Your task to perform on an android device: Go to settings Image 0: 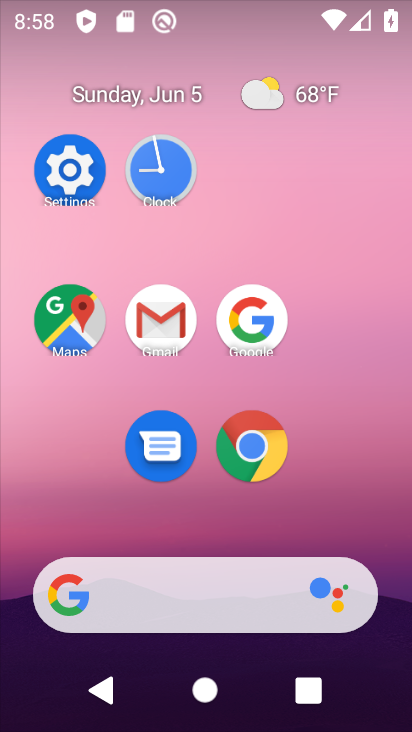
Step 0: click (84, 172)
Your task to perform on an android device: Go to settings Image 1: 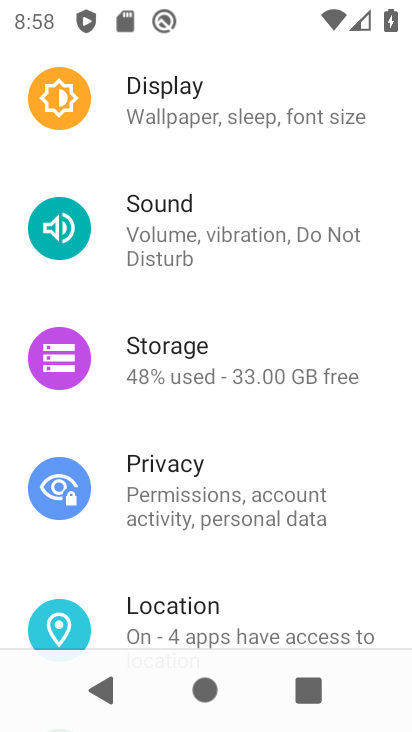
Step 1: task complete